Your task to perform on an android device: change alarm snooze length Image 0: 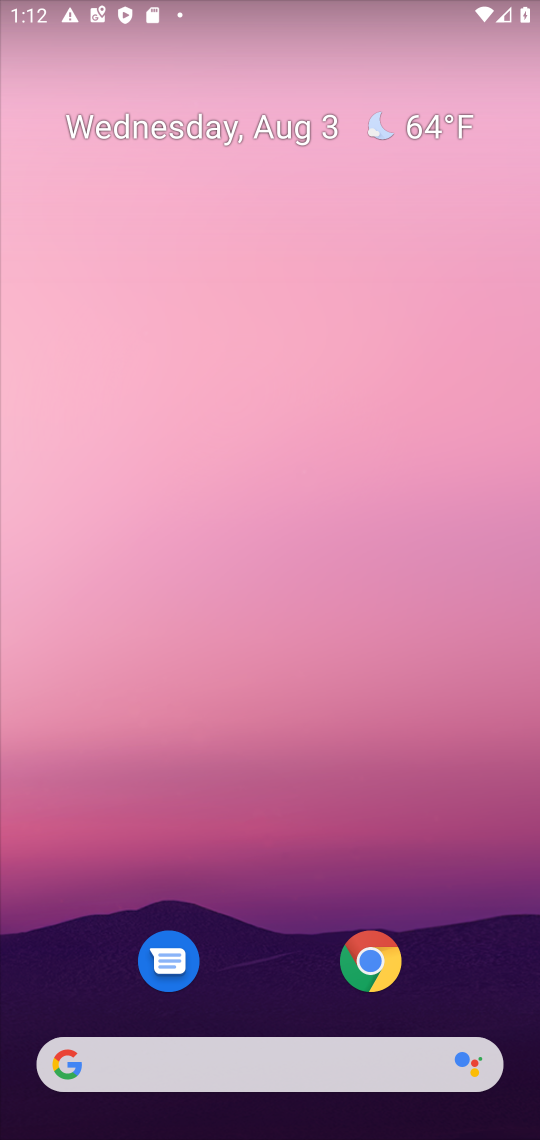
Step 0: drag from (272, 1000) to (285, 21)
Your task to perform on an android device: change alarm snooze length Image 1: 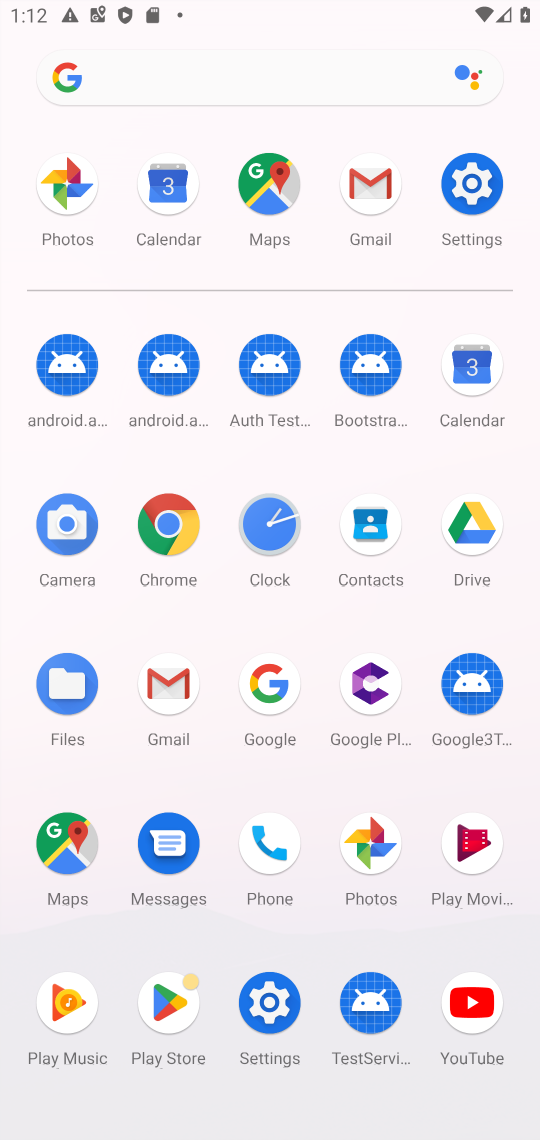
Step 1: click (274, 529)
Your task to perform on an android device: change alarm snooze length Image 2: 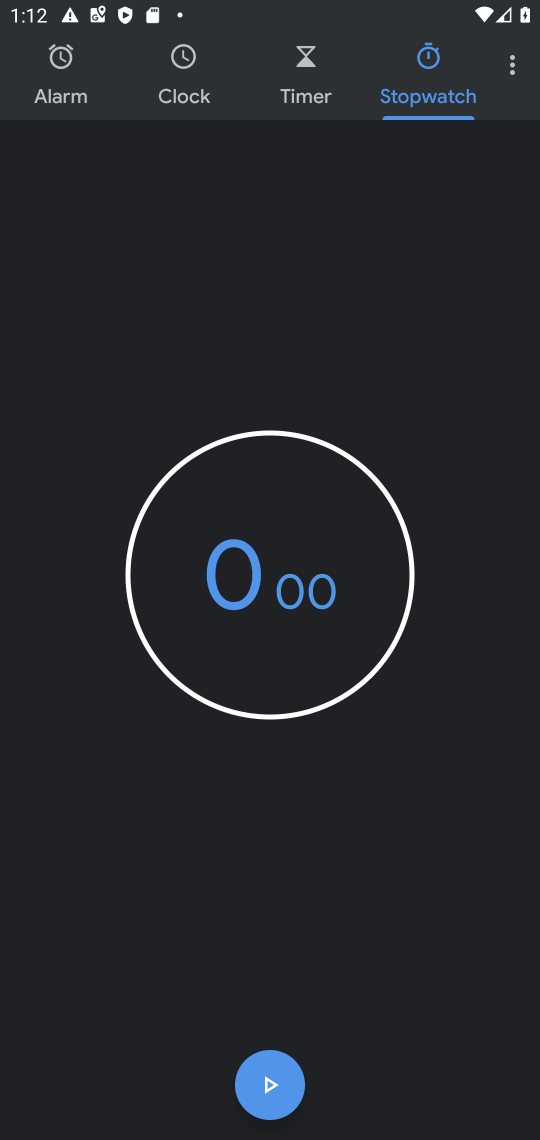
Step 2: click (514, 64)
Your task to perform on an android device: change alarm snooze length Image 3: 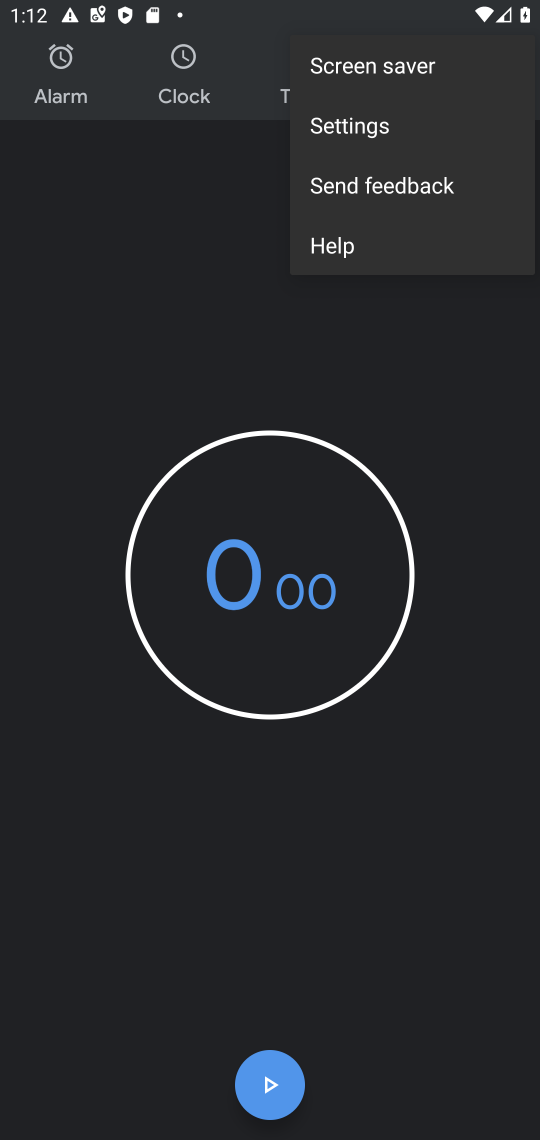
Step 3: click (342, 130)
Your task to perform on an android device: change alarm snooze length Image 4: 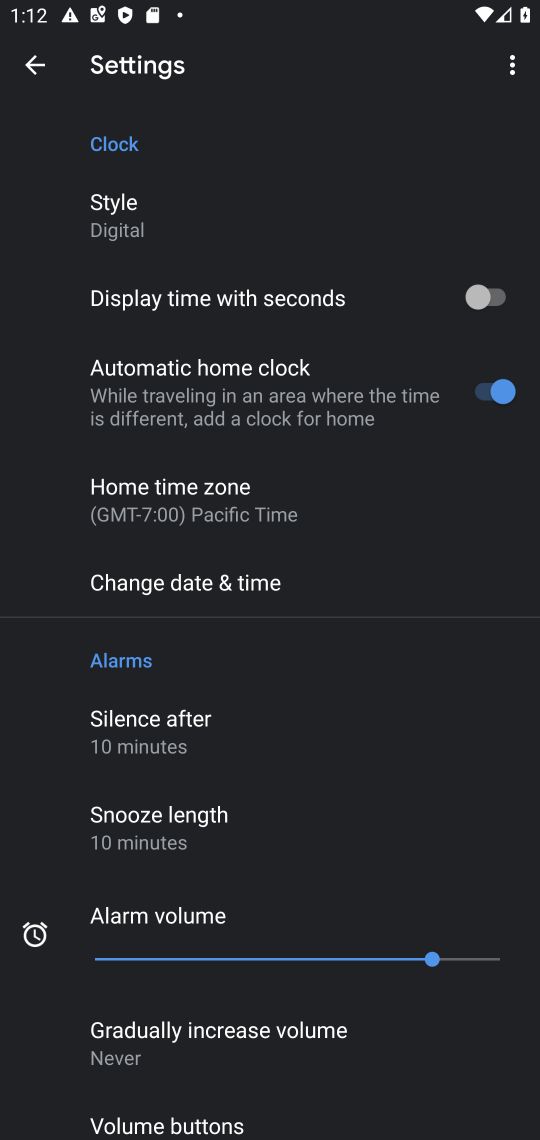
Step 4: click (129, 841)
Your task to perform on an android device: change alarm snooze length Image 5: 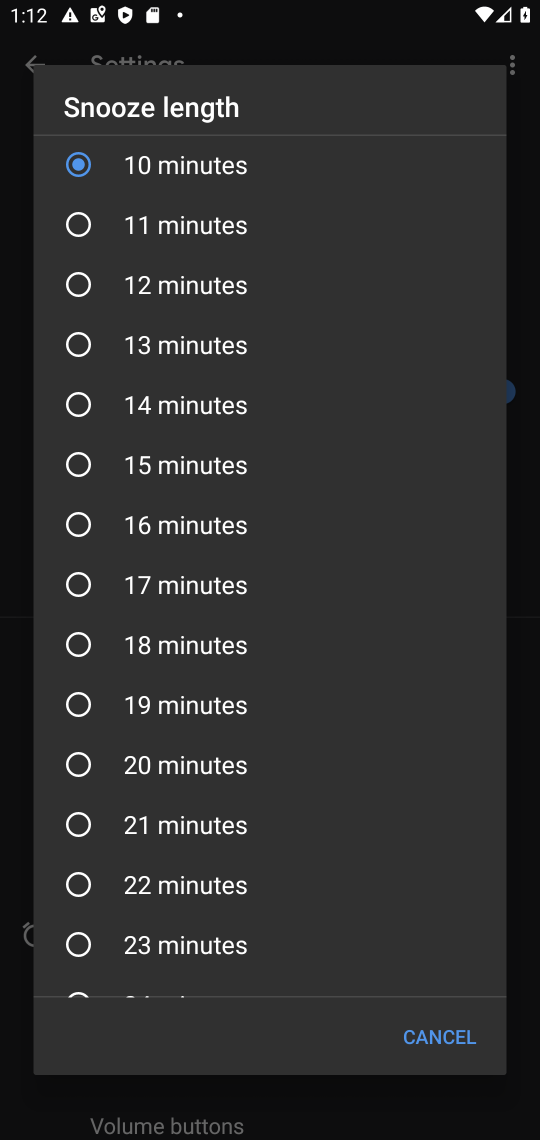
Step 5: click (87, 230)
Your task to perform on an android device: change alarm snooze length Image 6: 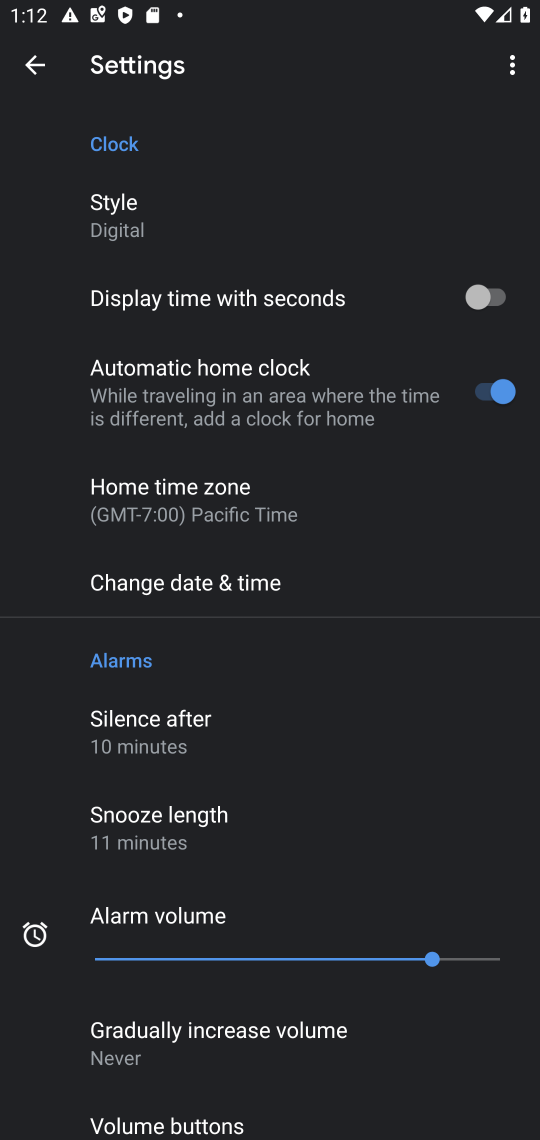
Step 6: task complete